Your task to perform on an android device: find photos in the google photos app Image 0: 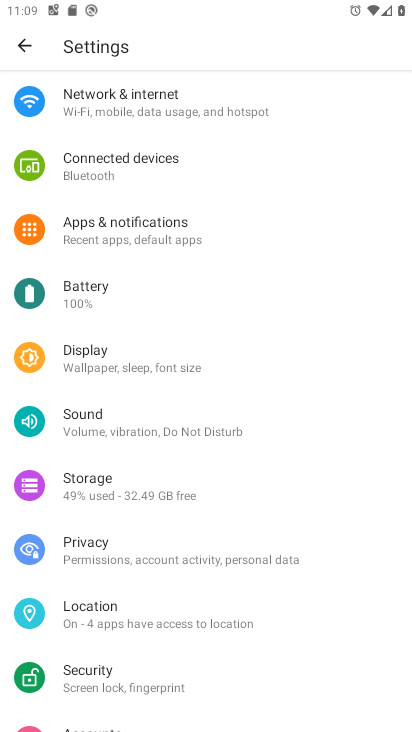
Step 0: drag from (134, 624) to (133, 318)
Your task to perform on an android device: find photos in the google photos app Image 1: 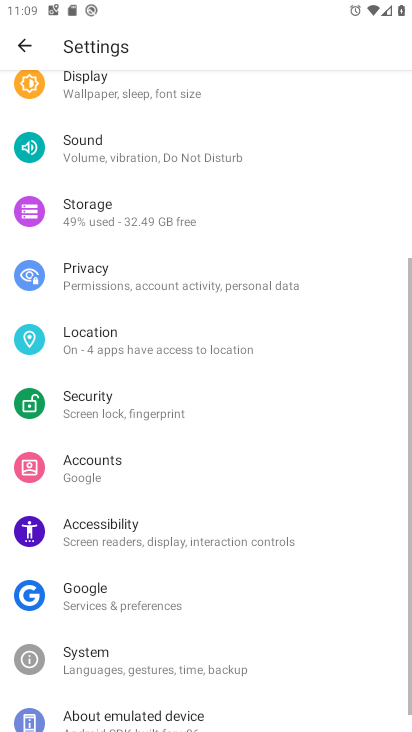
Step 1: drag from (126, 256) to (365, 725)
Your task to perform on an android device: find photos in the google photos app Image 2: 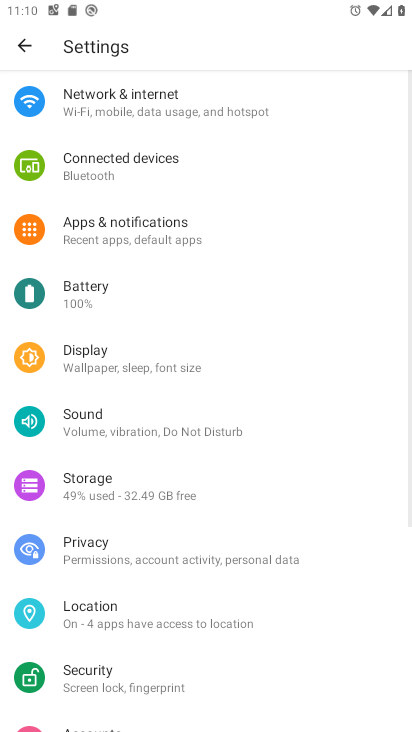
Step 2: press home button
Your task to perform on an android device: find photos in the google photos app Image 3: 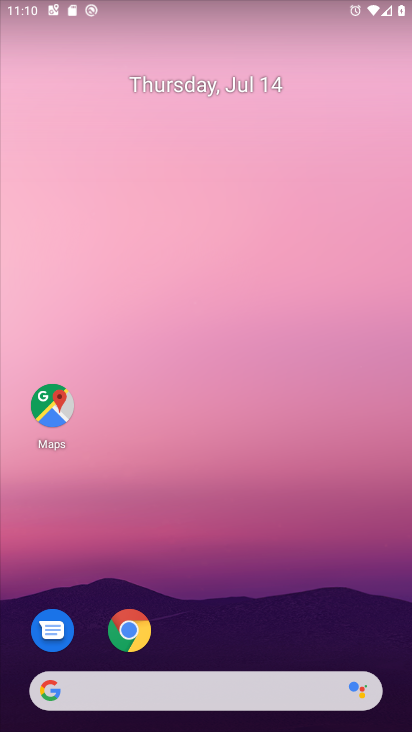
Step 3: drag from (184, 515) to (164, 330)
Your task to perform on an android device: find photos in the google photos app Image 4: 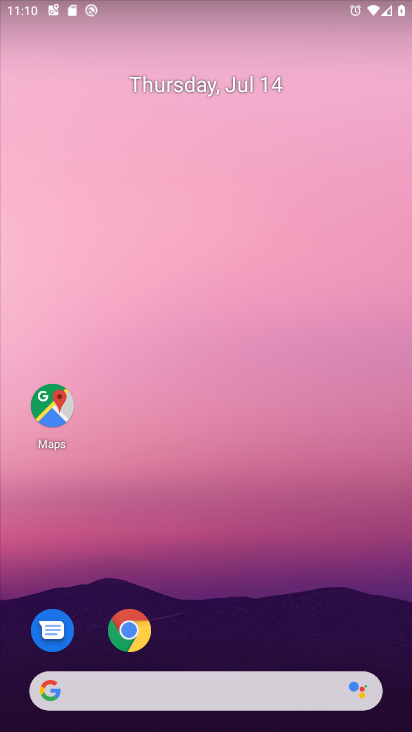
Step 4: drag from (193, 520) to (154, 201)
Your task to perform on an android device: find photos in the google photos app Image 5: 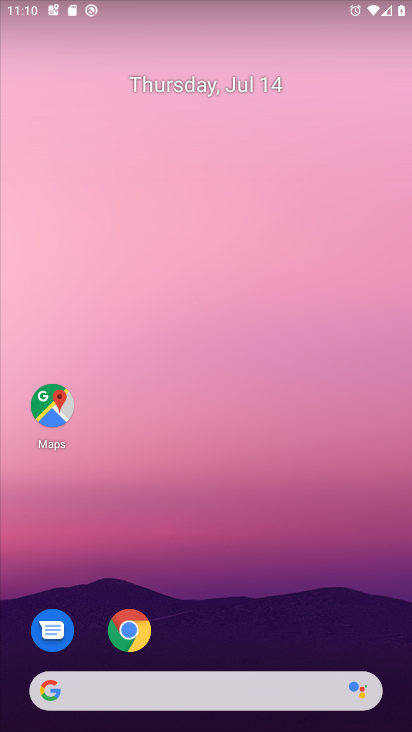
Step 5: click (242, 280)
Your task to perform on an android device: find photos in the google photos app Image 6: 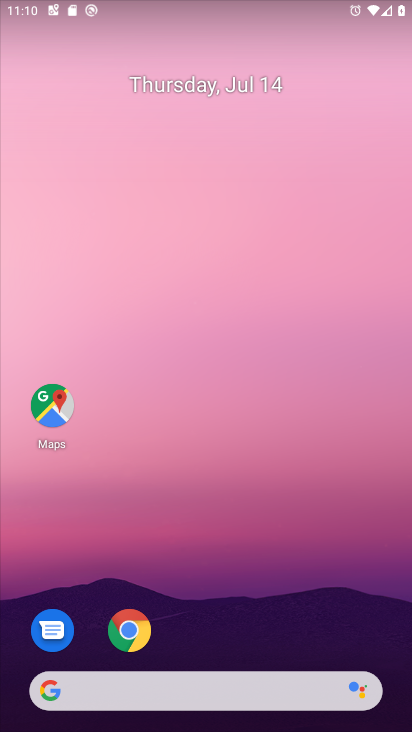
Step 6: drag from (196, 640) to (228, 239)
Your task to perform on an android device: find photos in the google photos app Image 7: 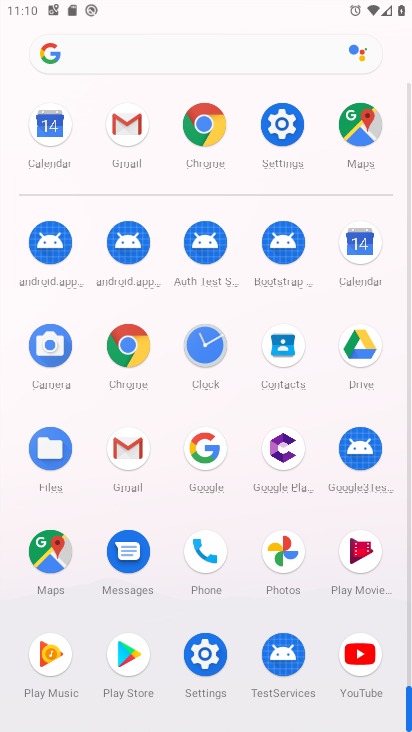
Step 7: click (281, 537)
Your task to perform on an android device: find photos in the google photos app Image 8: 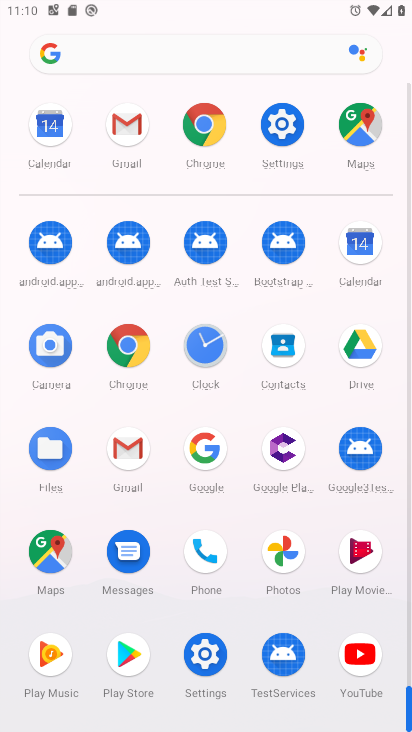
Step 8: click (281, 537)
Your task to perform on an android device: find photos in the google photos app Image 9: 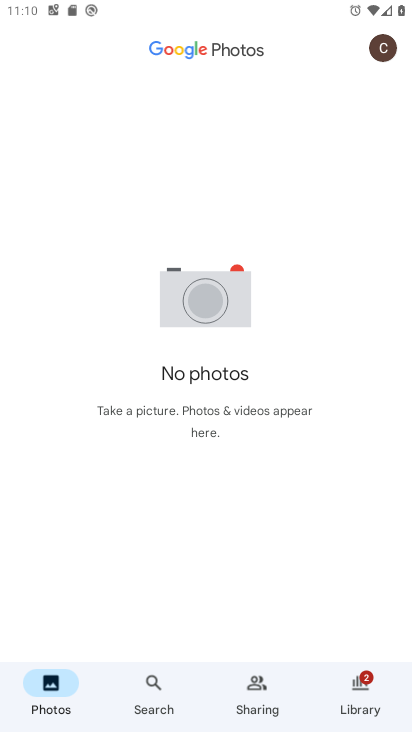
Step 9: click (55, 702)
Your task to perform on an android device: find photos in the google photos app Image 10: 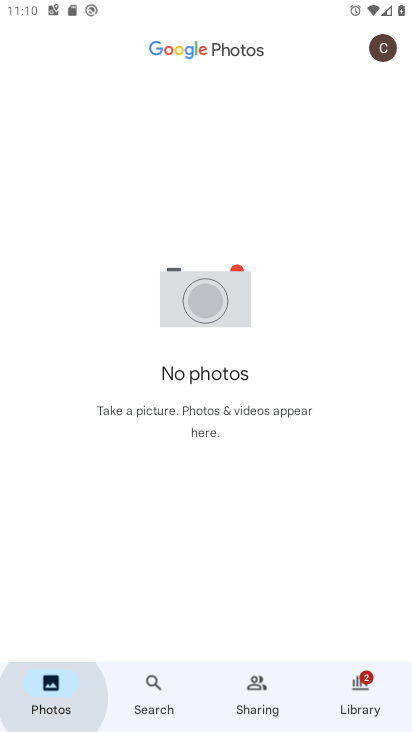
Step 10: task complete